Your task to perform on an android device: toggle show notifications on the lock screen Image 0: 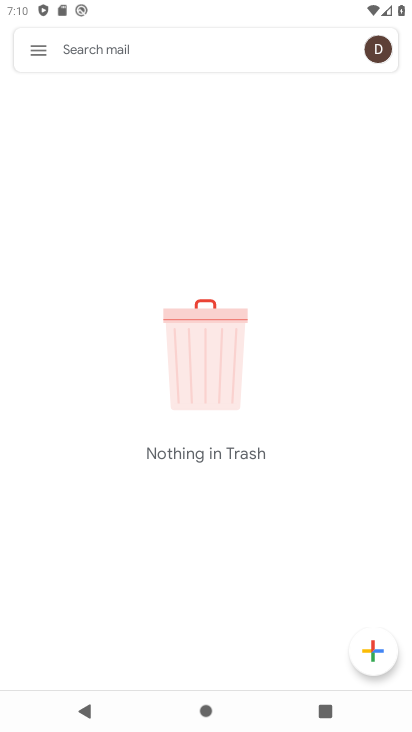
Step 0: task complete